Your task to perform on an android device: check out phone information Image 0: 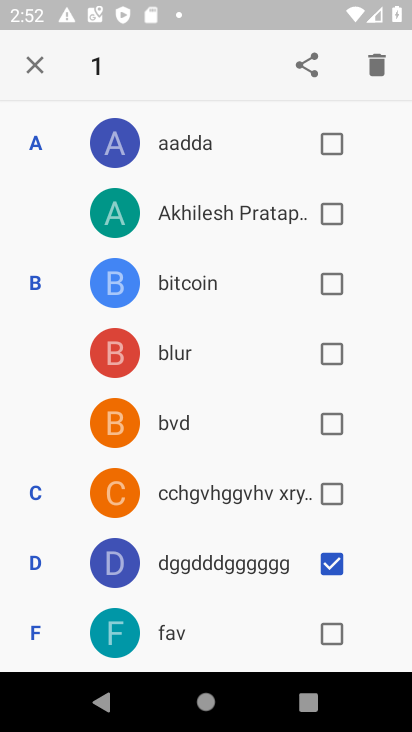
Step 0: press home button
Your task to perform on an android device: check out phone information Image 1: 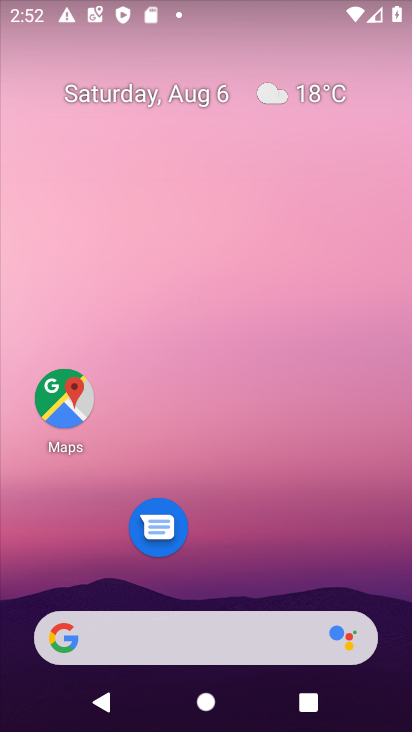
Step 1: drag from (273, 566) to (225, 108)
Your task to perform on an android device: check out phone information Image 2: 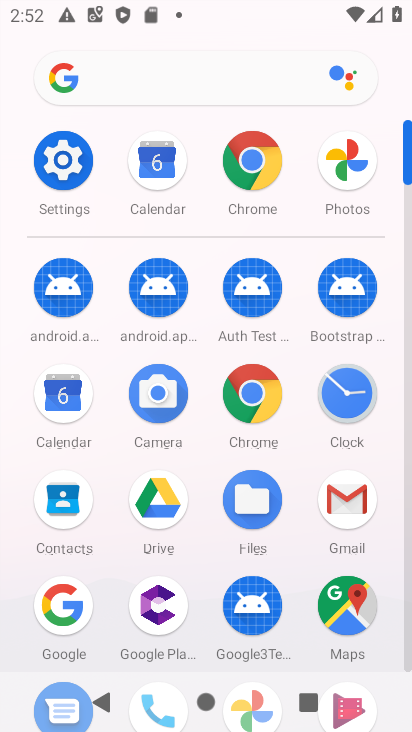
Step 2: drag from (204, 254) to (223, 3)
Your task to perform on an android device: check out phone information Image 3: 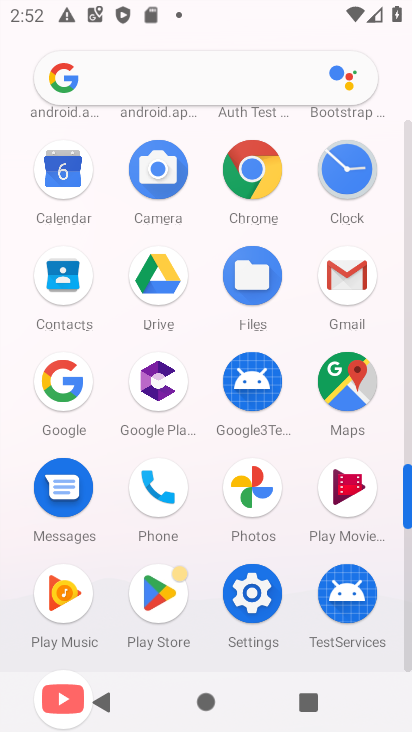
Step 3: click (267, 600)
Your task to perform on an android device: check out phone information Image 4: 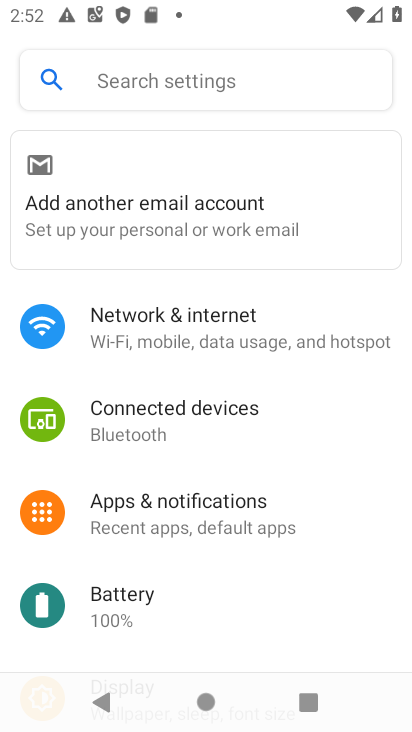
Step 4: drag from (261, 536) to (259, 3)
Your task to perform on an android device: check out phone information Image 5: 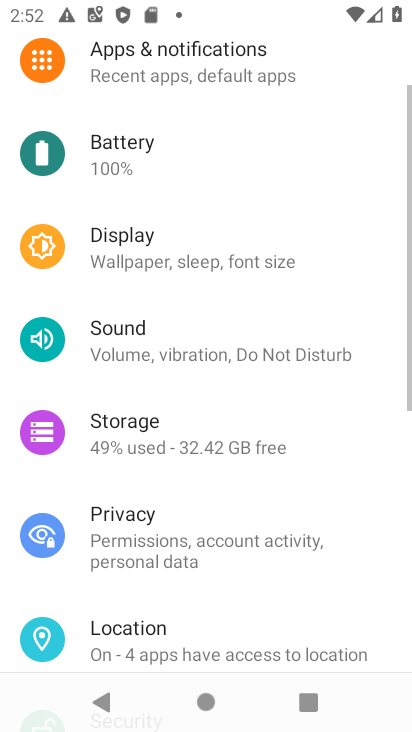
Step 5: drag from (222, 622) to (181, 4)
Your task to perform on an android device: check out phone information Image 6: 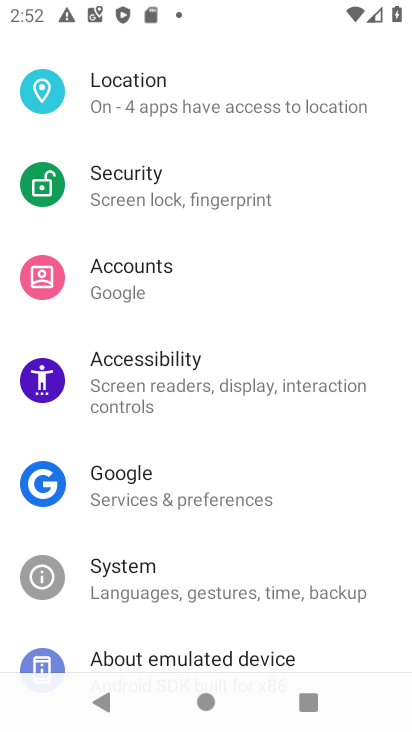
Step 6: drag from (228, 640) to (206, 19)
Your task to perform on an android device: check out phone information Image 7: 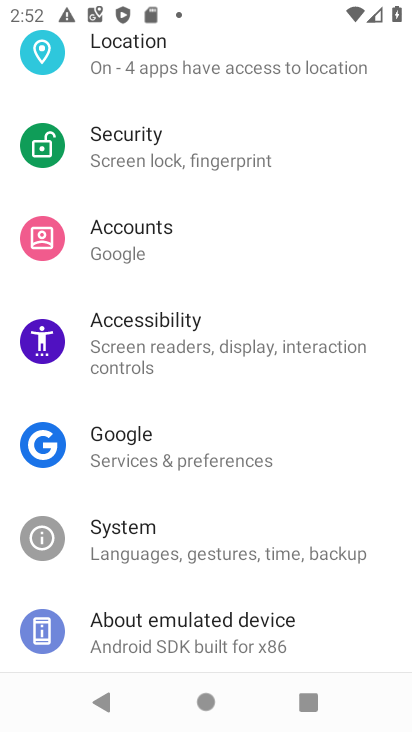
Step 7: click (209, 619)
Your task to perform on an android device: check out phone information Image 8: 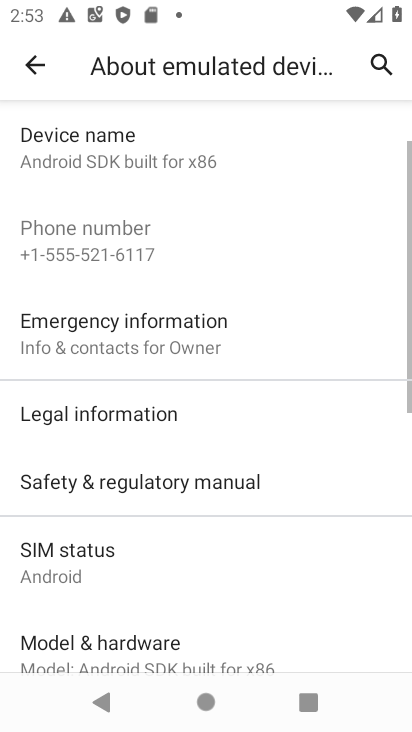
Step 8: task complete